Your task to perform on an android device: clear history in the chrome app Image 0: 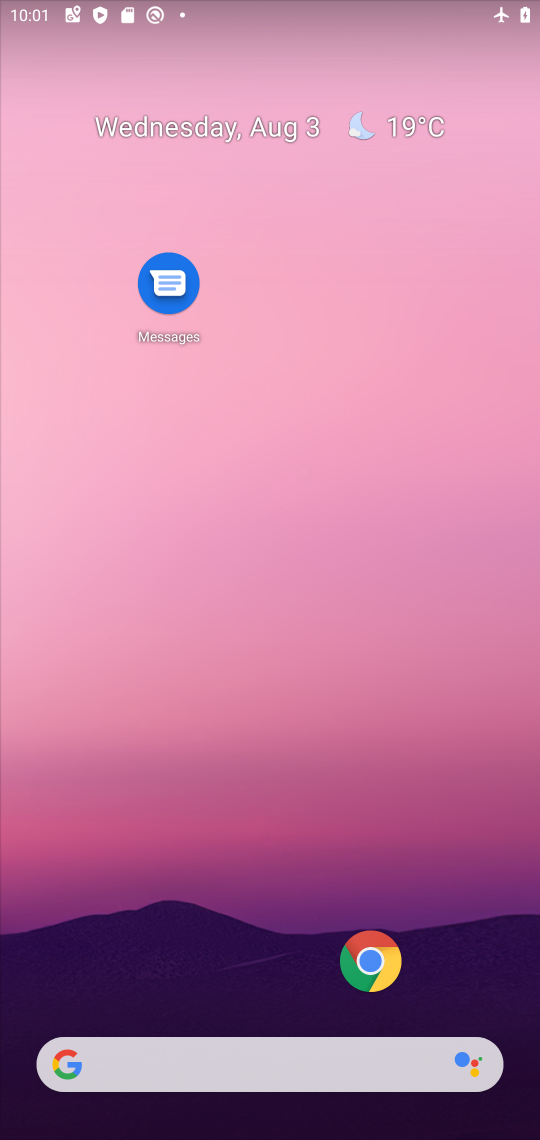
Step 0: drag from (283, 1016) to (196, 73)
Your task to perform on an android device: clear history in the chrome app Image 1: 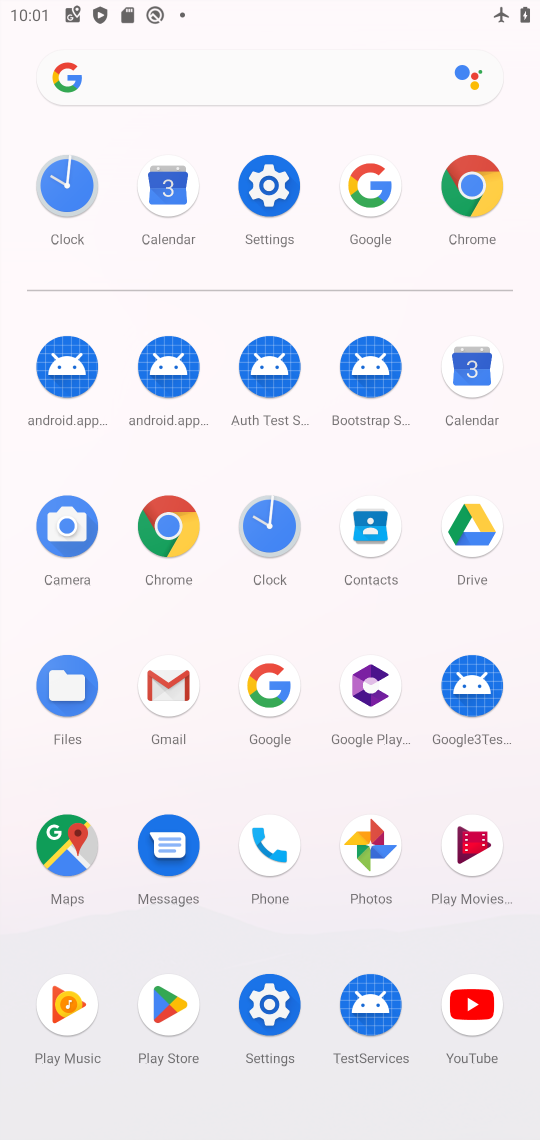
Step 1: click (162, 543)
Your task to perform on an android device: clear history in the chrome app Image 2: 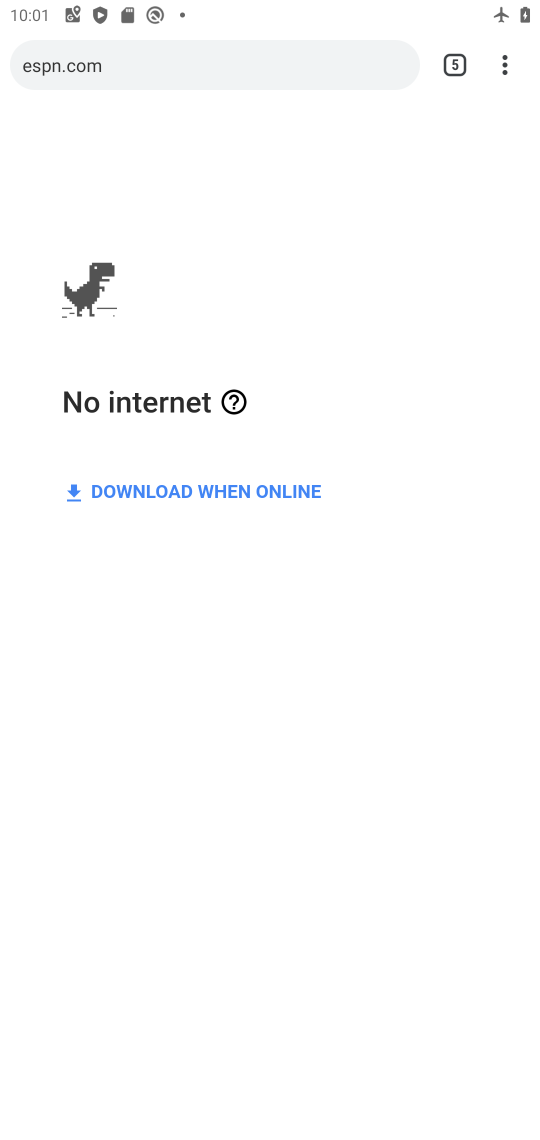
Step 2: drag from (501, 69) to (250, 373)
Your task to perform on an android device: clear history in the chrome app Image 3: 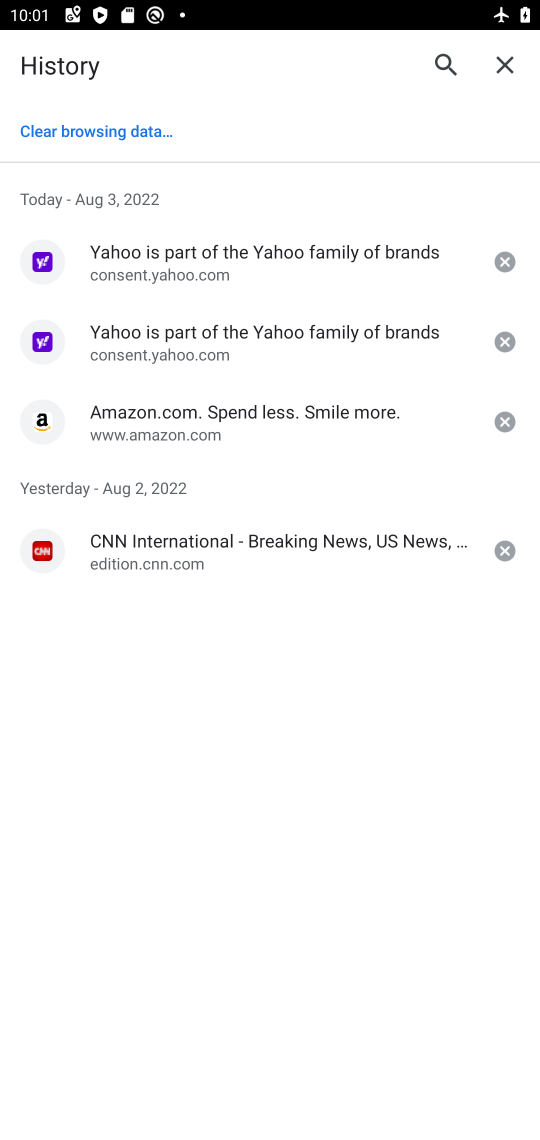
Step 3: click (111, 143)
Your task to perform on an android device: clear history in the chrome app Image 4: 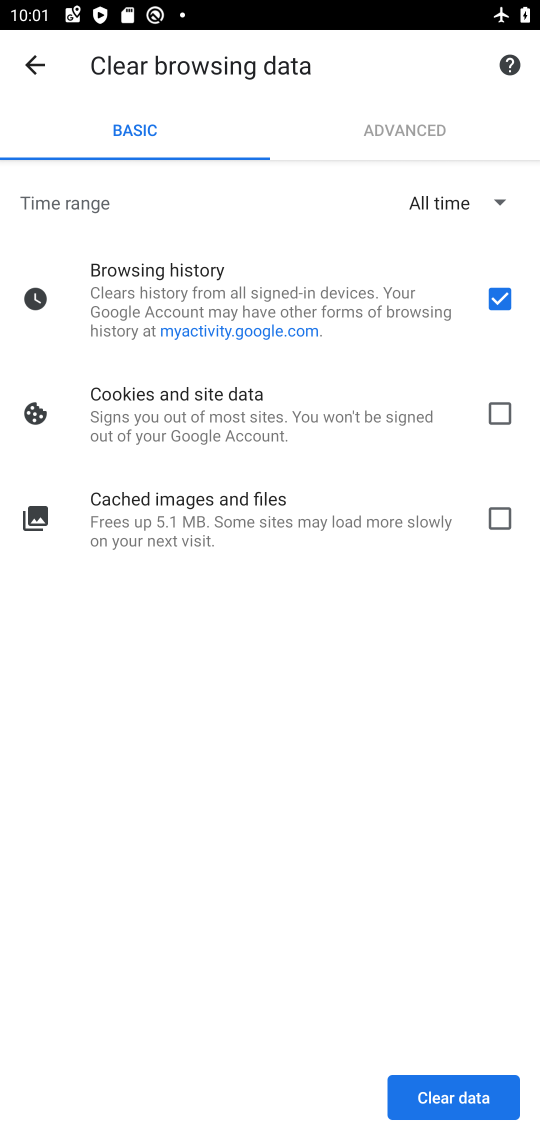
Step 4: click (452, 422)
Your task to perform on an android device: clear history in the chrome app Image 5: 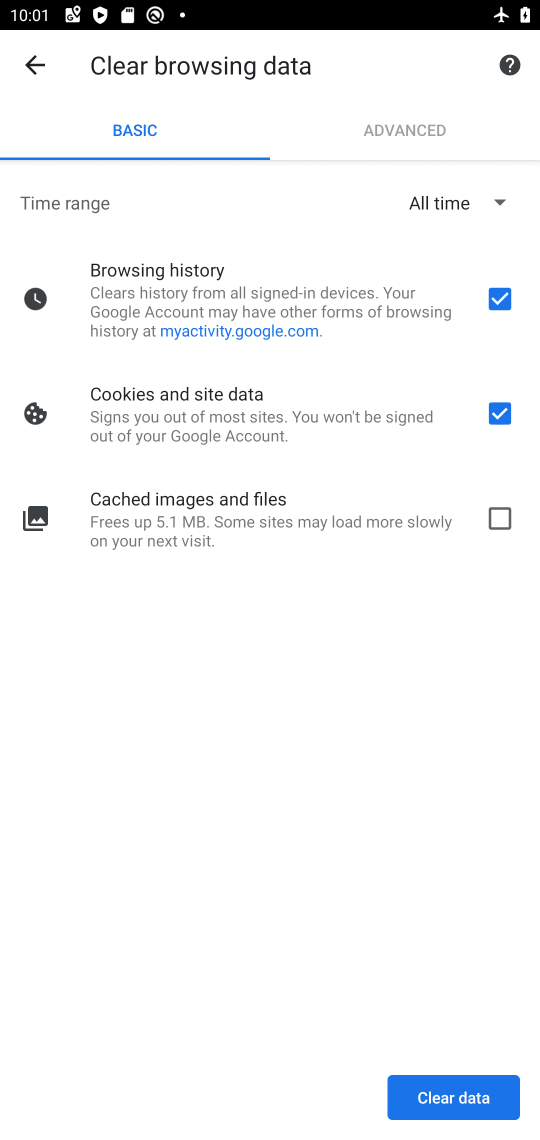
Step 5: click (469, 509)
Your task to perform on an android device: clear history in the chrome app Image 6: 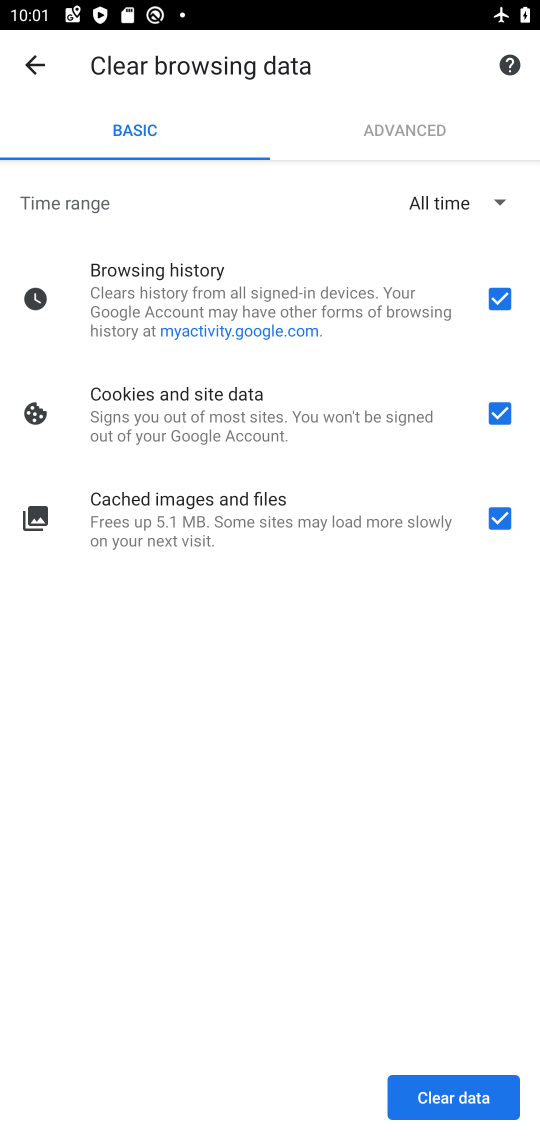
Step 6: click (477, 1082)
Your task to perform on an android device: clear history in the chrome app Image 7: 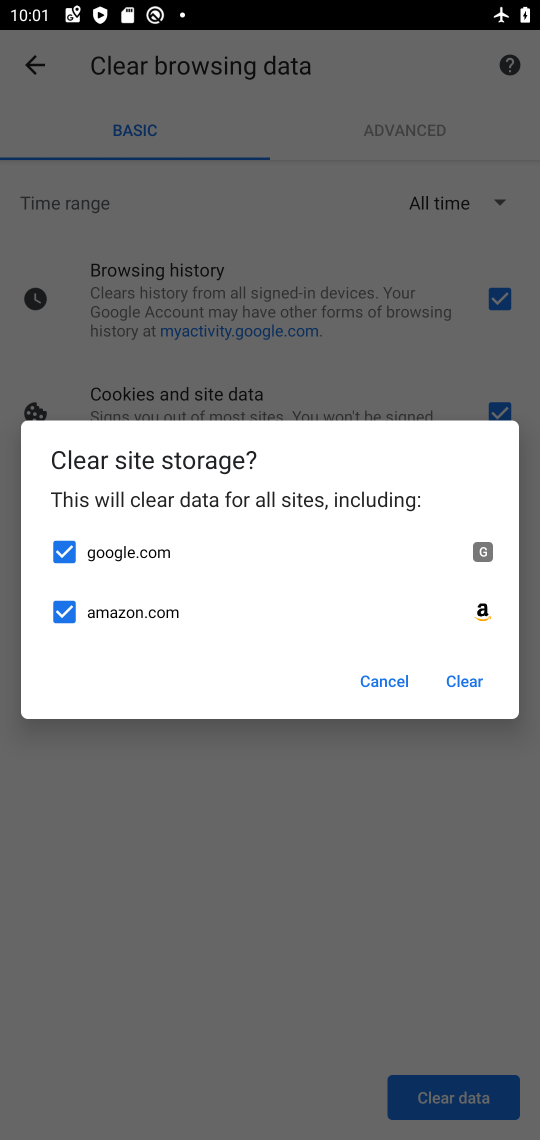
Step 7: click (444, 684)
Your task to perform on an android device: clear history in the chrome app Image 8: 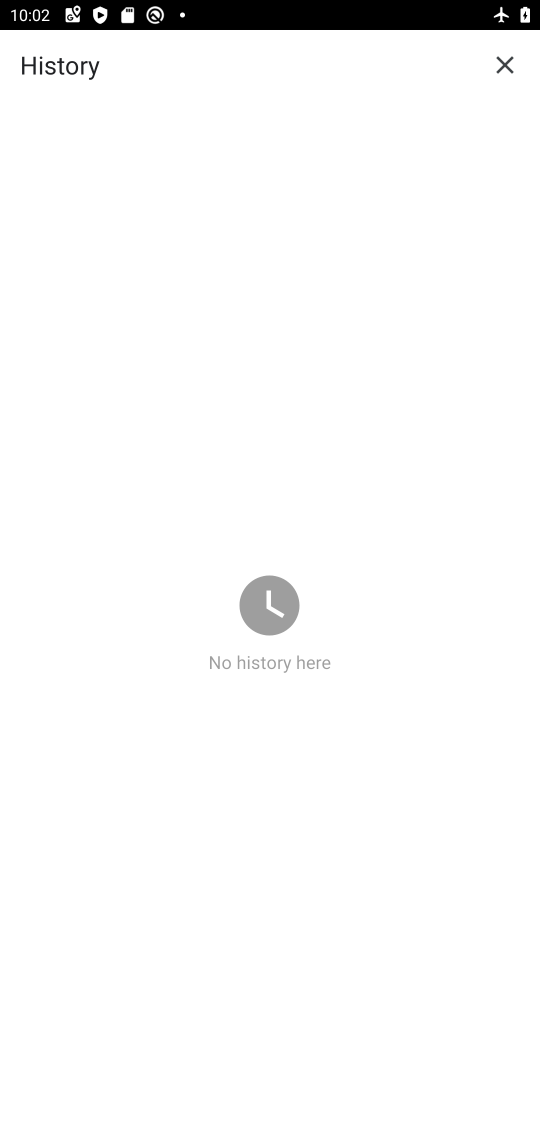
Step 8: task complete